Your task to perform on an android device: Open Maps and search for coffee Image 0: 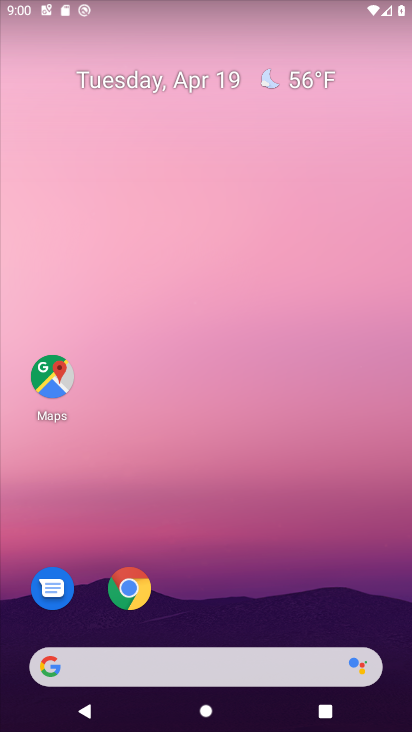
Step 0: drag from (217, 388) to (207, 82)
Your task to perform on an android device: Open Maps and search for coffee Image 1: 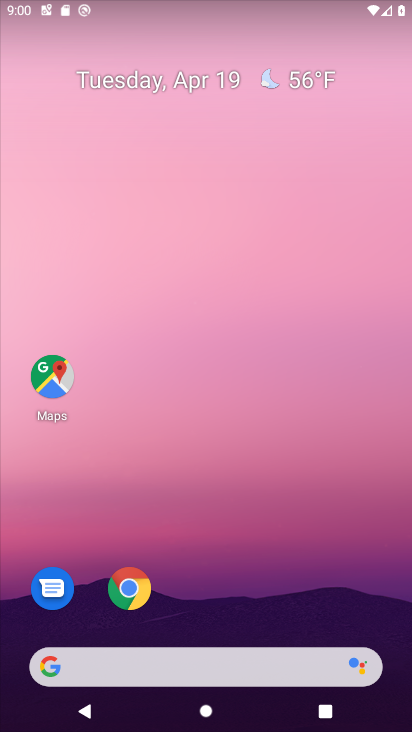
Step 1: drag from (216, 617) to (232, 0)
Your task to perform on an android device: Open Maps and search for coffee Image 2: 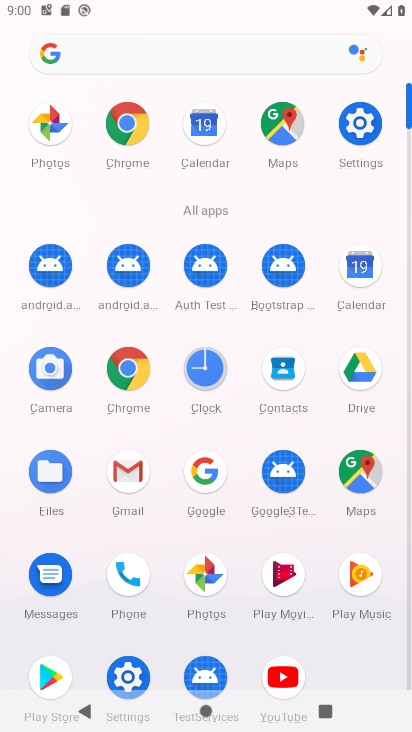
Step 2: click (360, 469)
Your task to perform on an android device: Open Maps and search for coffee Image 3: 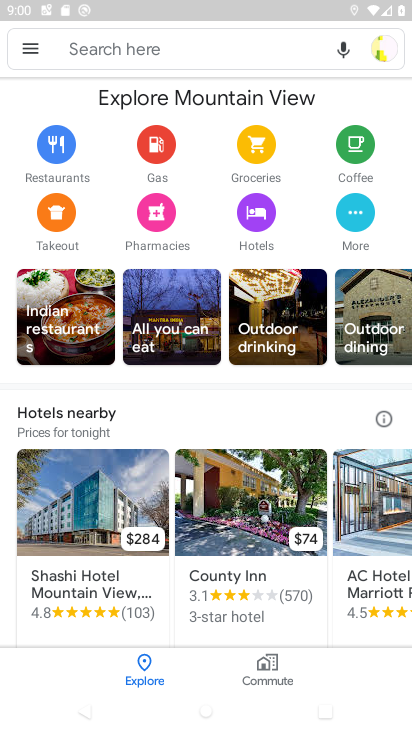
Step 3: click (111, 46)
Your task to perform on an android device: Open Maps and search for coffee Image 4: 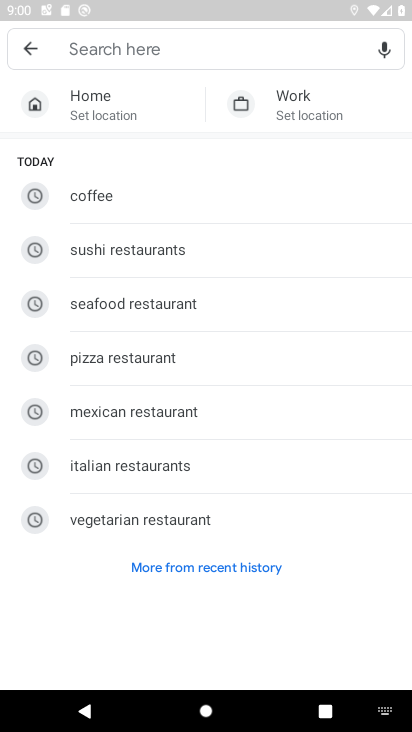
Step 4: click (126, 200)
Your task to perform on an android device: Open Maps and search for coffee Image 5: 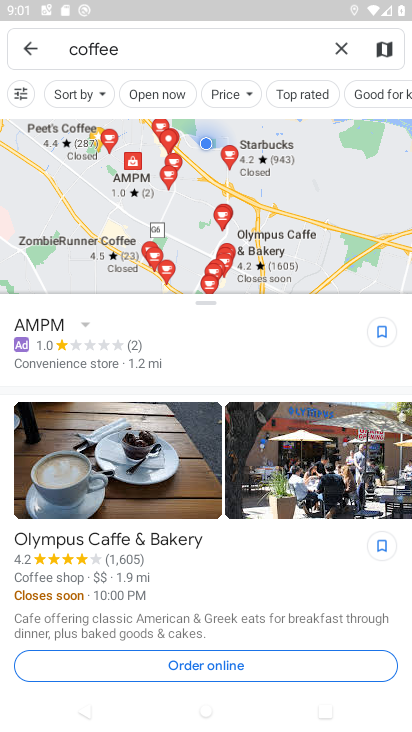
Step 5: task complete